Your task to perform on an android device: Go to battery settings Image 0: 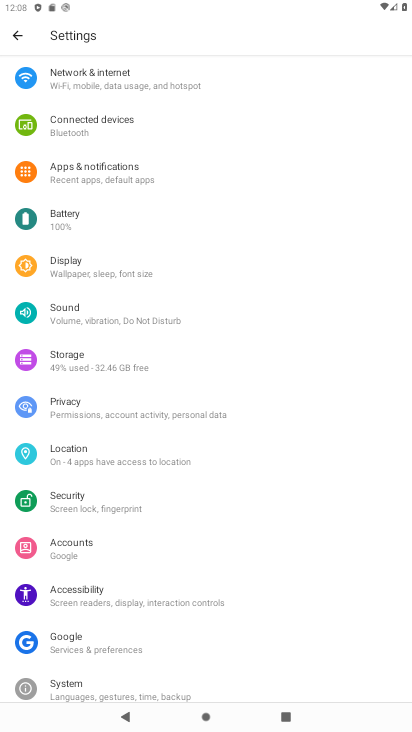
Step 0: click (89, 221)
Your task to perform on an android device: Go to battery settings Image 1: 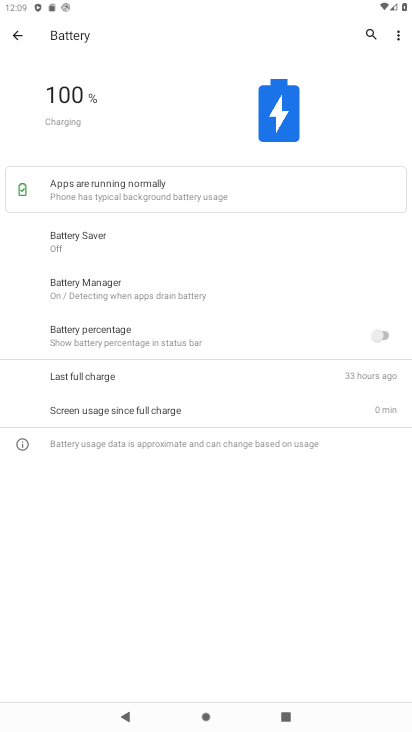
Step 1: task complete